Your task to perform on an android device: install app "Google Sheets" Image 0: 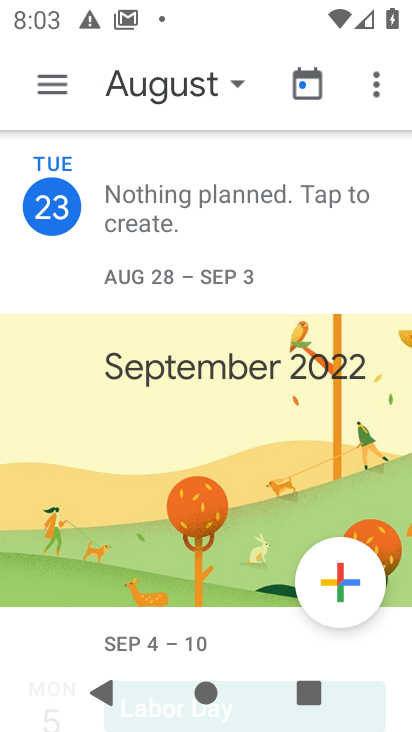
Step 0: press back button
Your task to perform on an android device: install app "Google Sheets" Image 1: 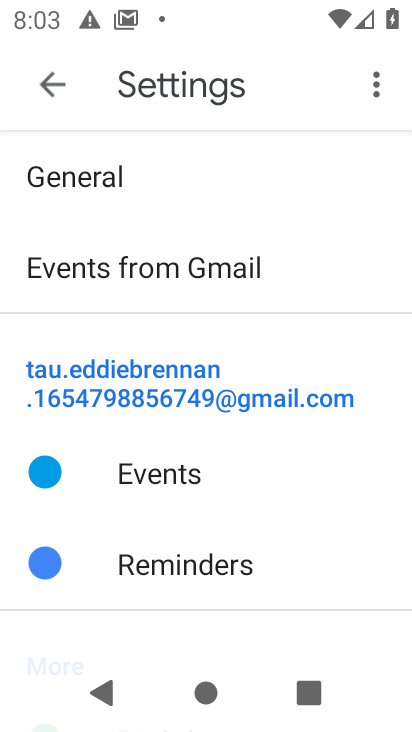
Step 1: press back button
Your task to perform on an android device: install app "Google Sheets" Image 2: 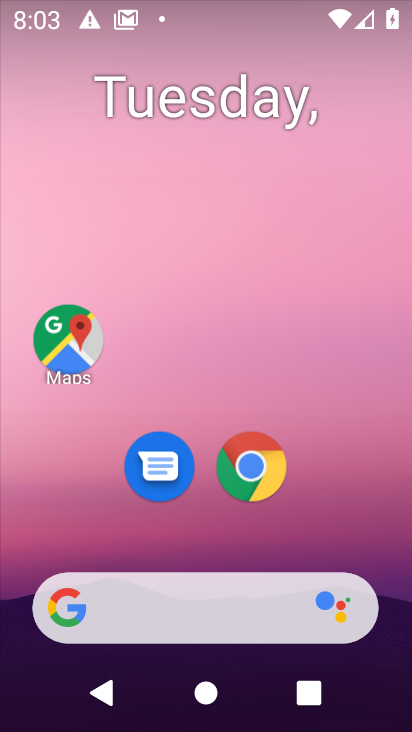
Step 2: drag from (183, 556) to (339, 9)
Your task to perform on an android device: install app "Google Sheets" Image 3: 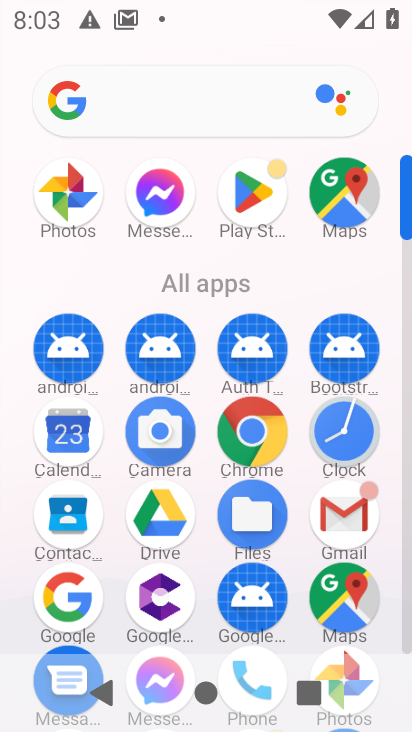
Step 3: click (255, 187)
Your task to perform on an android device: install app "Google Sheets" Image 4: 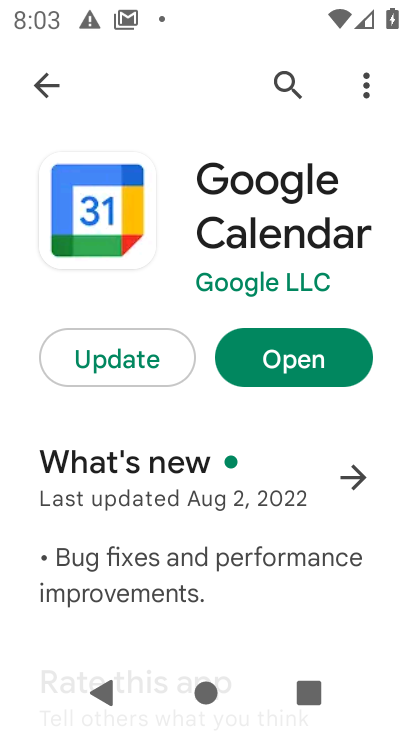
Step 4: click (289, 86)
Your task to perform on an android device: install app "Google Sheets" Image 5: 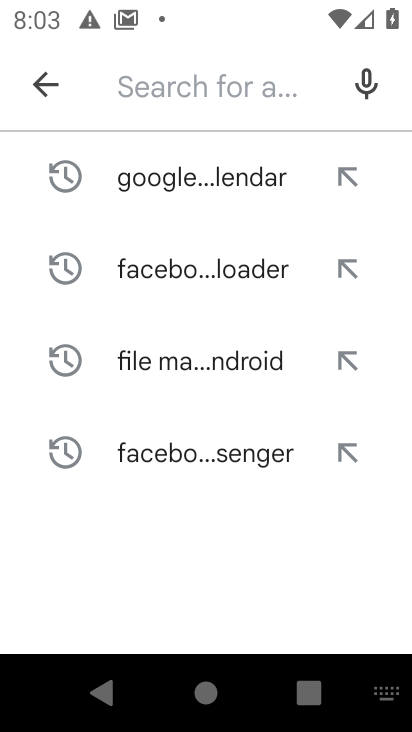
Step 5: click (160, 85)
Your task to perform on an android device: install app "Google Sheets" Image 6: 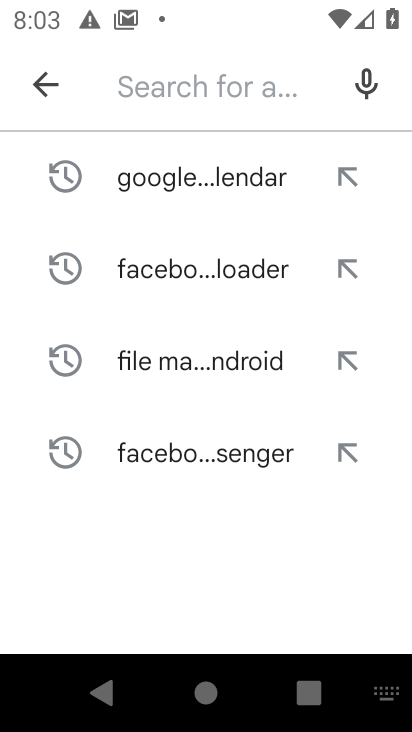
Step 6: type "Google Sheets"
Your task to perform on an android device: install app "Google Sheets" Image 7: 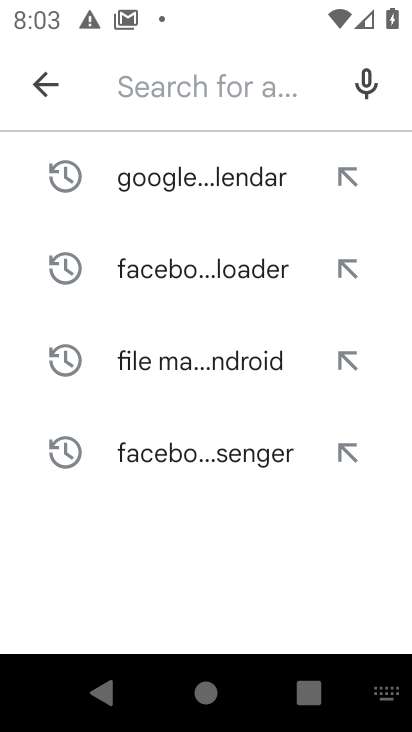
Step 7: click (141, 527)
Your task to perform on an android device: install app "Google Sheets" Image 8: 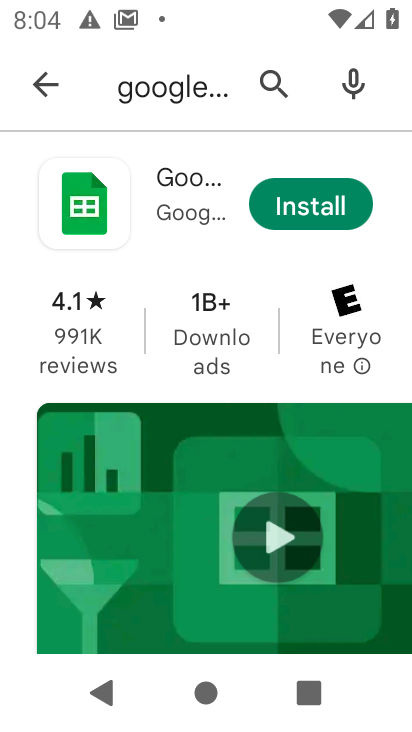
Step 8: click (357, 200)
Your task to perform on an android device: install app "Google Sheets" Image 9: 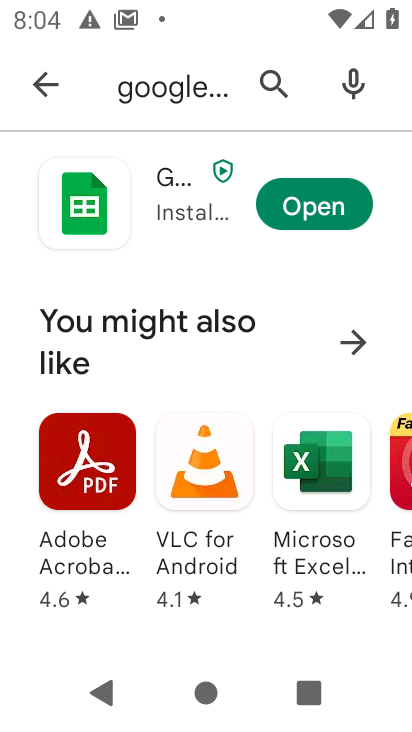
Step 9: task complete